Your task to perform on an android device: Open Maps and search for coffee Image 0: 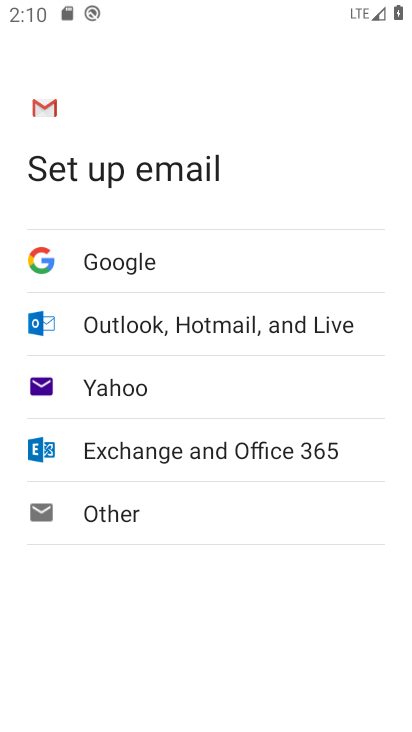
Step 0: press home button
Your task to perform on an android device: Open Maps and search for coffee Image 1: 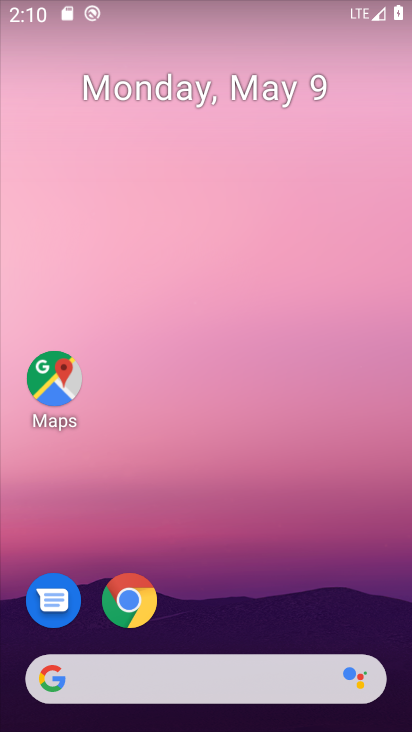
Step 1: drag from (269, 630) to (308, 30)
Your task to perform on an android device: Open Maps and search for coffee Image 2: 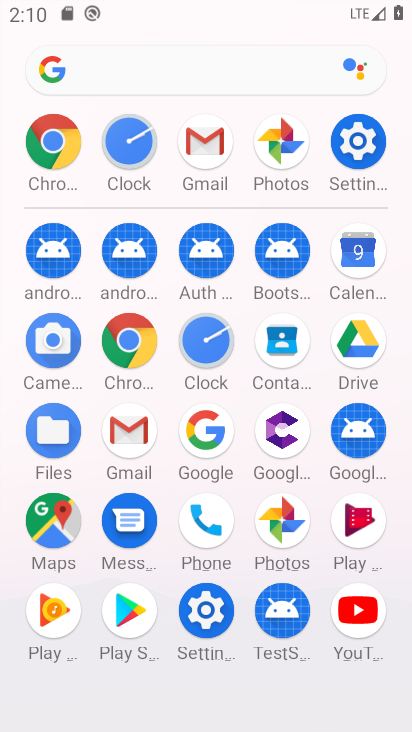
Step 2: click (39, 538)
Your task to perform on an android device: Open Maps and search for coffee Image 3: 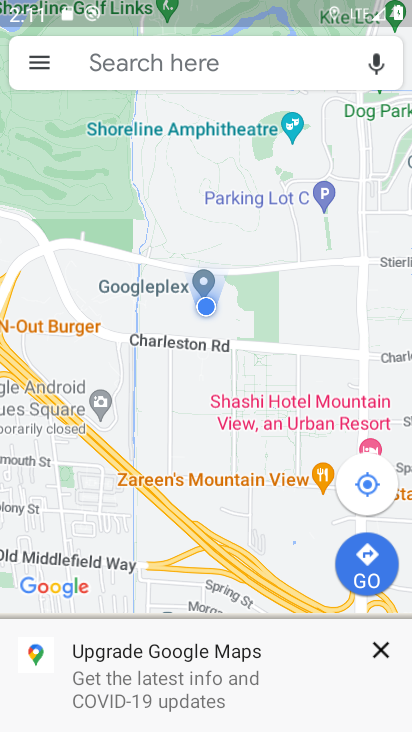
Step 3: click (104, 68)
Your task to perform on an android device: Open Maps and search for coffee Image 4: 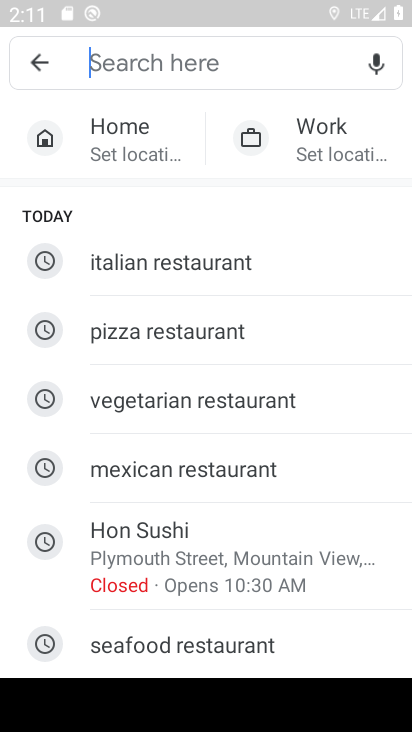
Step 4: type "coffee"
Your task to perform on an android device: Open Maps and search for coffee Image 5: 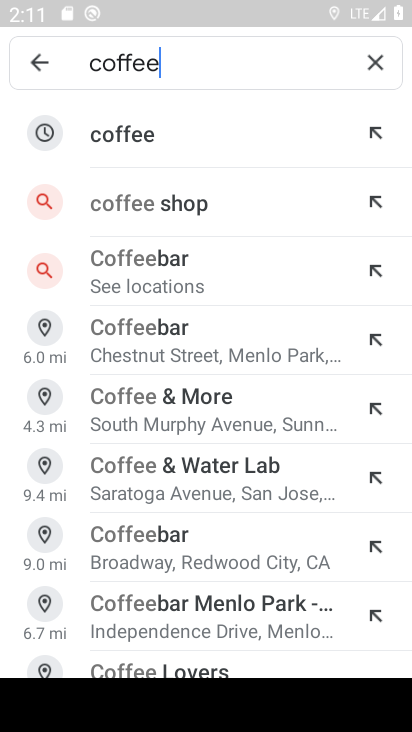
Step 5: click (180, 135)
Your task to perform on an android device: Open Maps and search for coffee Image 6: 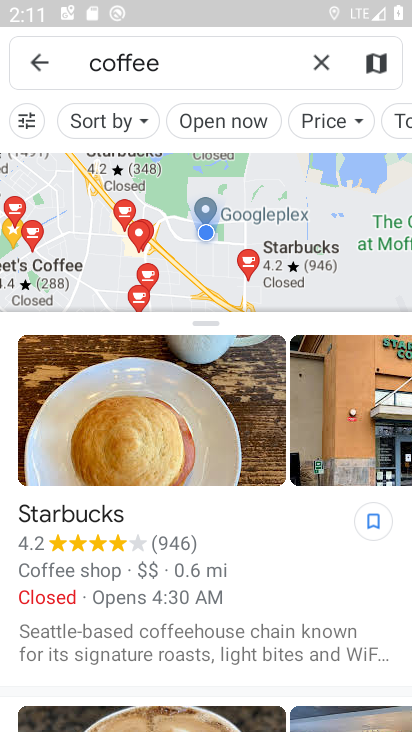
Step 6: task complete